Your task to perform on an android device: Show me productivity apps on the Play Store Image 0: 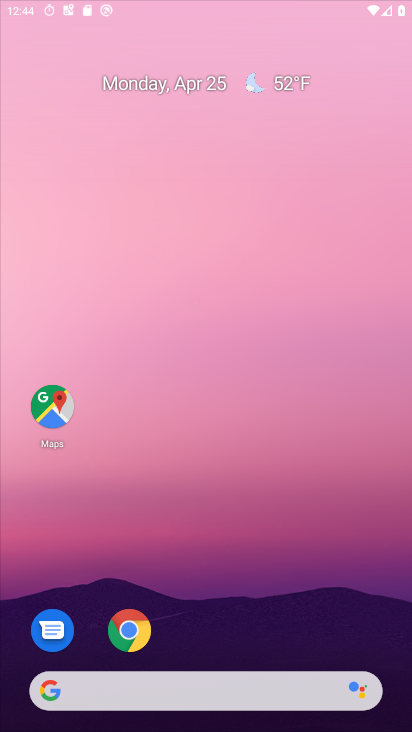
Step 0: click (202, 116)
Your task to perform on an android device: Show me productivity apps on the Play Store Image 1: 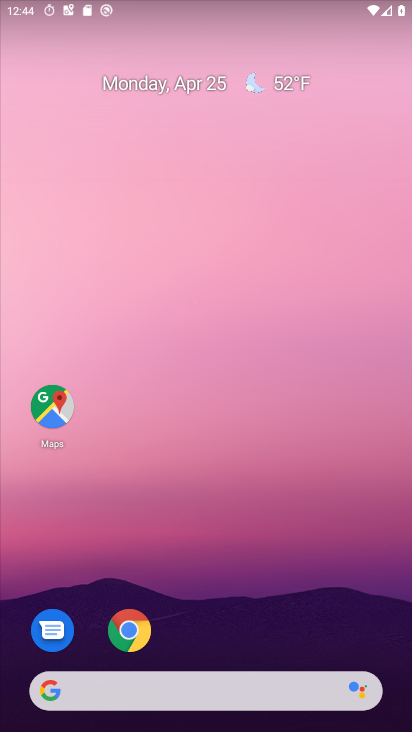
Step 1: drag from (242, 595) to (294, 197)
Your task to perform on an android device: Show me productivity apps on the Play Store Image 2: 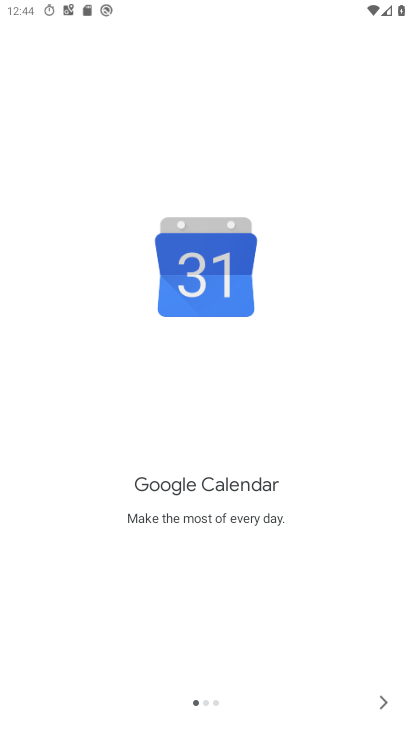
Step 2: drag from (241, 573) to (270, 390)
Your task to perform on an android device: Show me productivity apps on the Play Store Image 3: 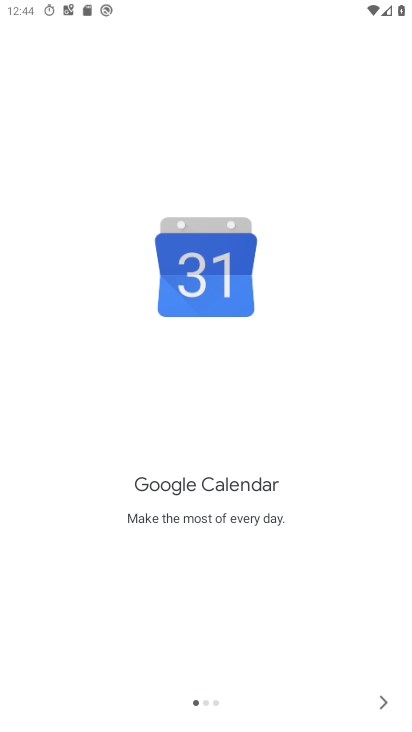
Step 3: press home button
Your task to perform on an android device: Show me productivity apps on the Play Store Image 4: 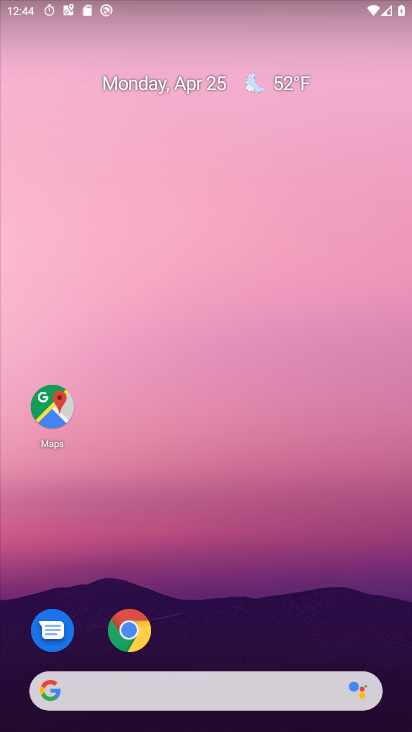
Step 4: drag from (176, 481) to (207, 158)
Your task to perform on an android device: Show me productivity apps on the Play Store Image 5: 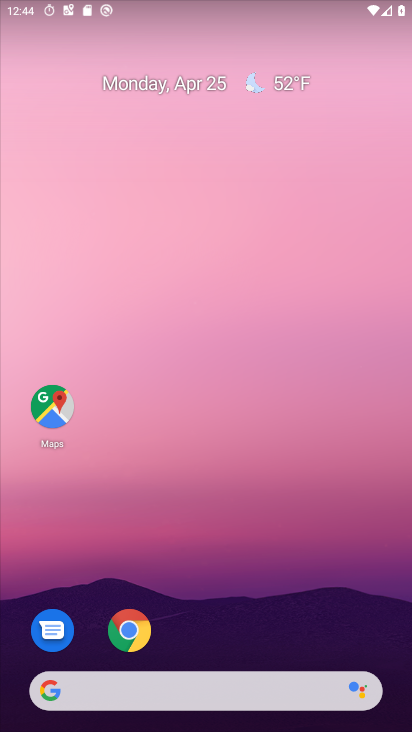
Step 5: drag from (219, 614) to (199, 40)
Your task to perform on an android device: Show me productivity apps on the Play Store Image 6: 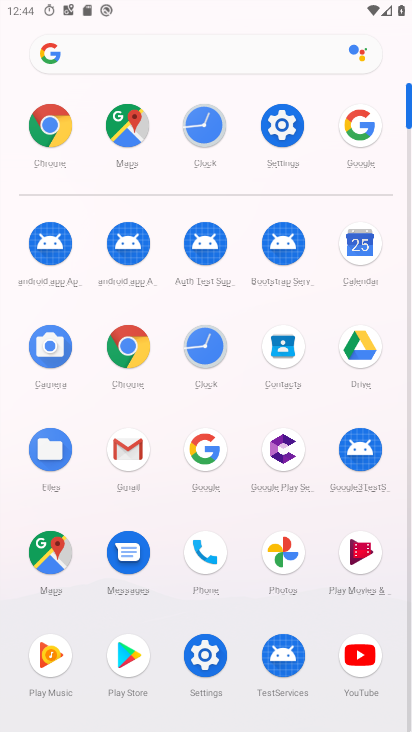
Step 6: click (112, 660)
Your task to perform on an android device: Show me productivity apps on the Play Store Image 7: 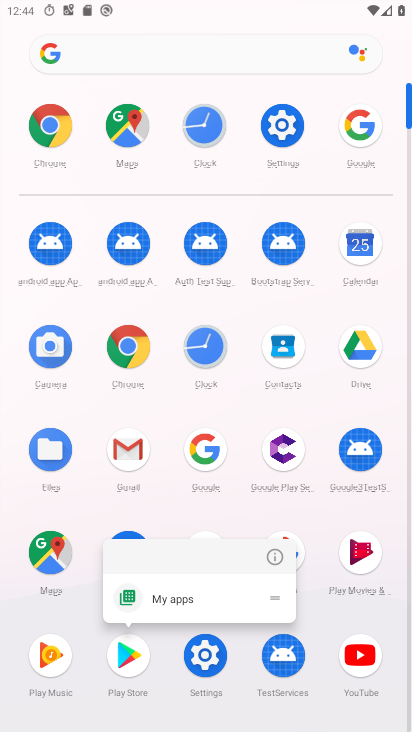
Step 7: click (269, 543)
Your task to perform on an android device: Show me productivity apps on the Play Store Image 8: 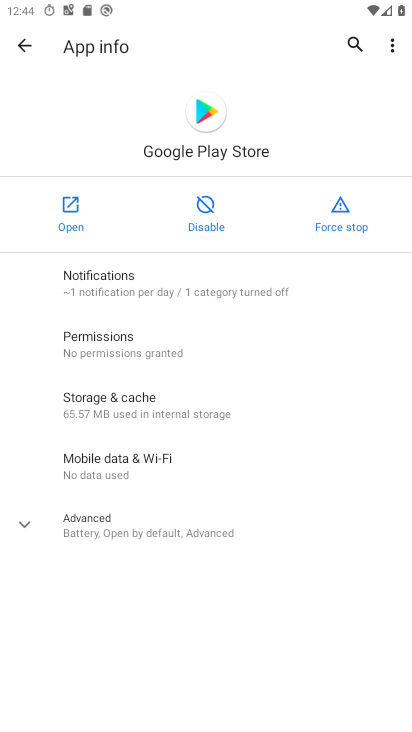
Step 8: click (67, 235)
Your task to perform on an android device: Show me productivity apps on the Play Store Image 9: 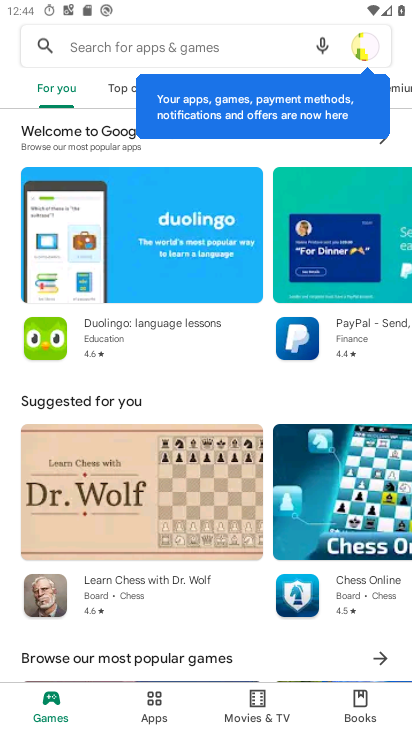
Step 9: drag from (261, 148) to (250, 517)
Your task to perform on an android device: Show me productivity apps on the Play Store Image 10: 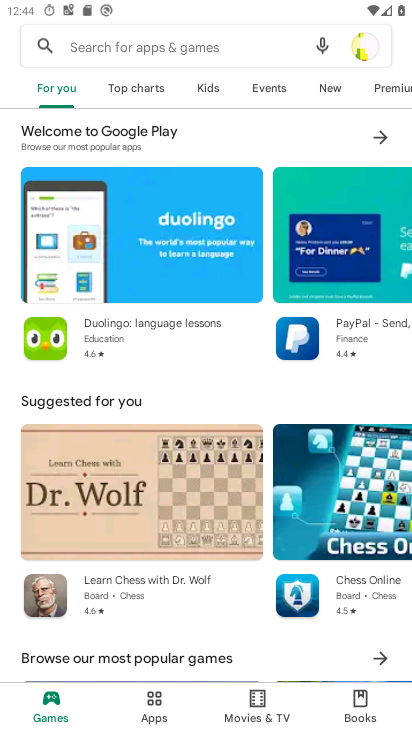
Step 10: click (358, 51)
Your task to perform on an android device: Show me productivity apps on the Play Store Image 11: 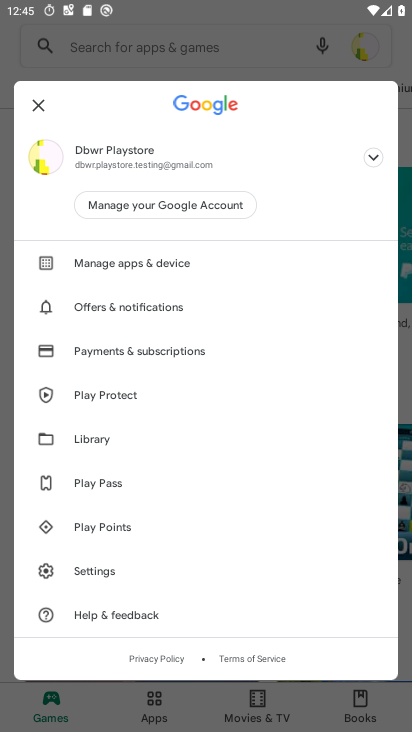
Step 11: click (207, 262)
Your task to perform on an android device: Show me productivity apps on the Play Store Image 12: 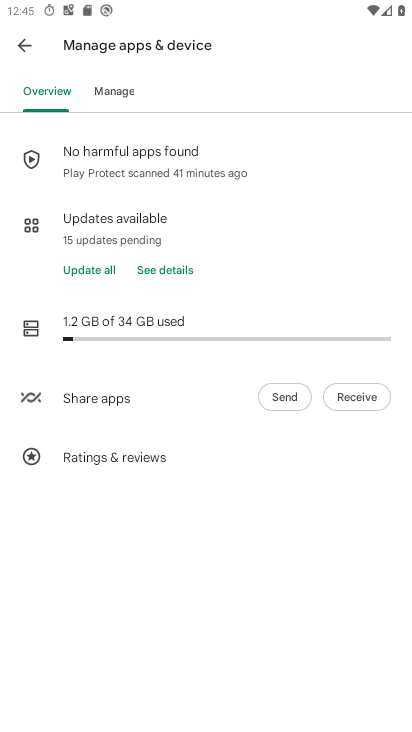
Step 12: click (110, 229)
Your task to perform on an android device: Show me productivity apps on the Play Store Image 13: 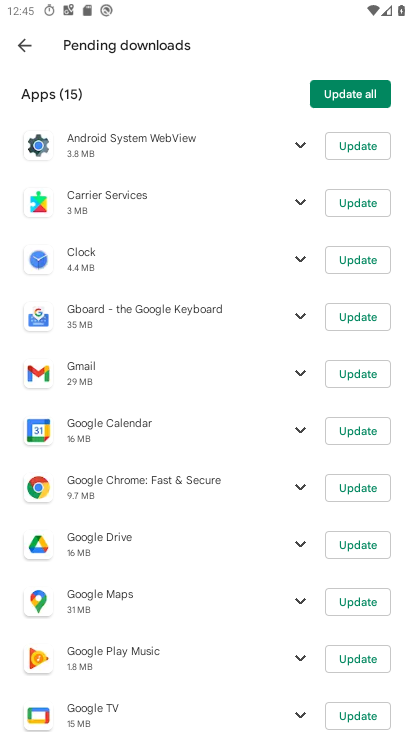
Step 13: task complete